Your task to perform on an android device: search for starred emails in the gmail app Image 0: 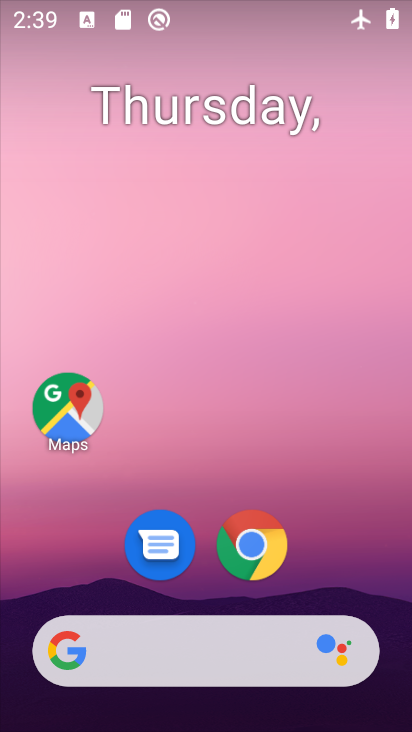
Step 0: drag from (229, 696) to (138, 144)
Your task to perform on an android device: search for starred emails in the gmail app Image 1: 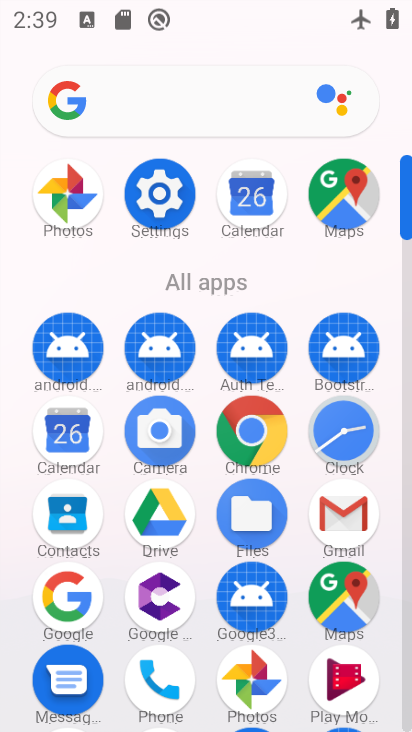
Step 1: click (344, 521)
Your task to perform on an android device: search for starred emails in the gmail app Image 2: 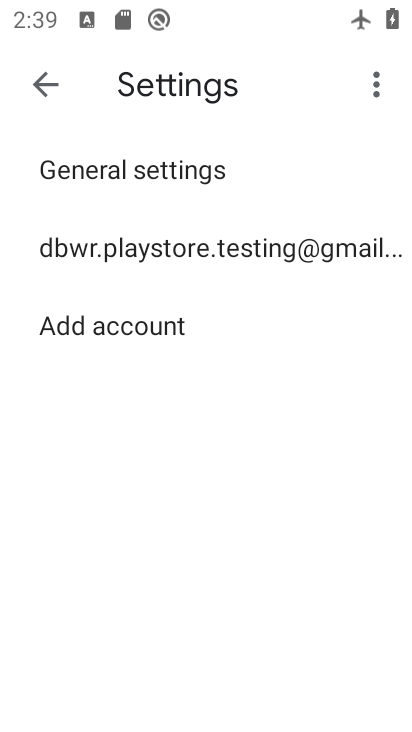
Step 2: click (38, 78)
Your task to perform on an android device: search for starred emails in the gmail app Image 3: 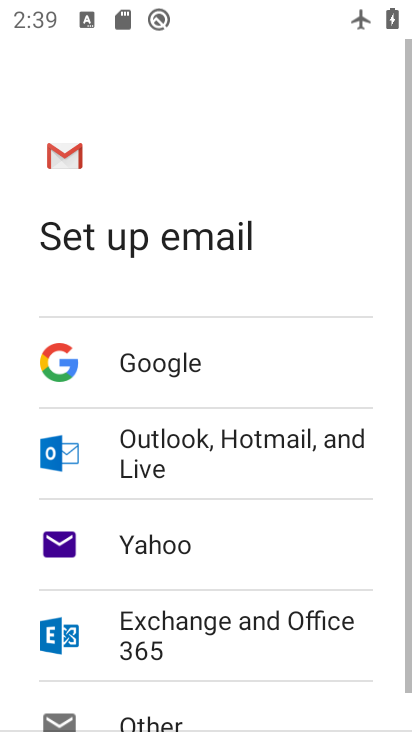
Step 3: press back button
Your task to perform on an android device: search for starred emails in the gmail app Image 4: 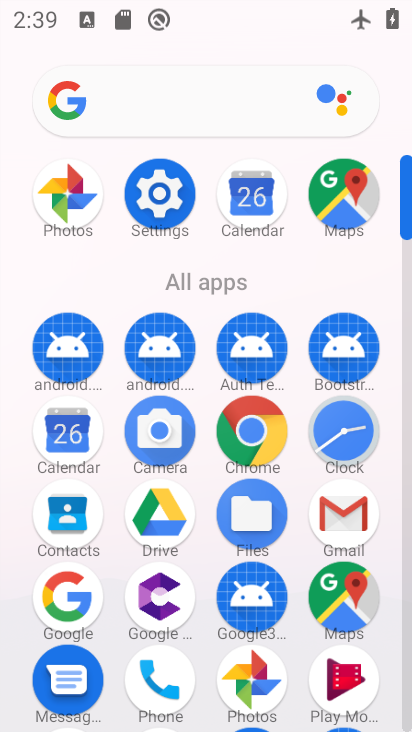
Step 4: click (358, 500)
Your task to perform on an android device: search for starred emails in the gmail app Image 5: 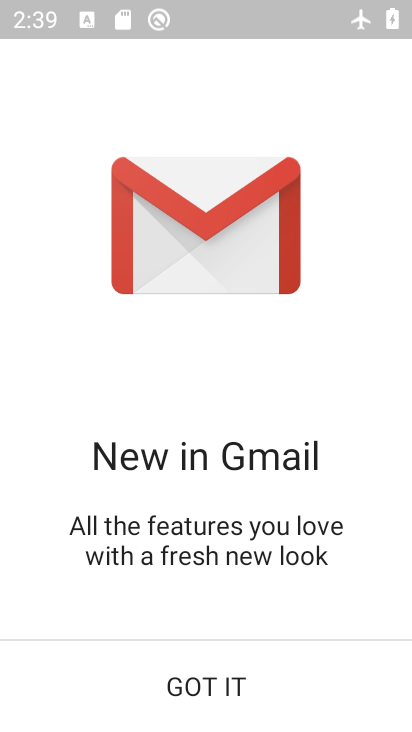
Step 5: click (230, 687)
Your task to perform on an android device: search for starred emails in the gmail app Image 6: 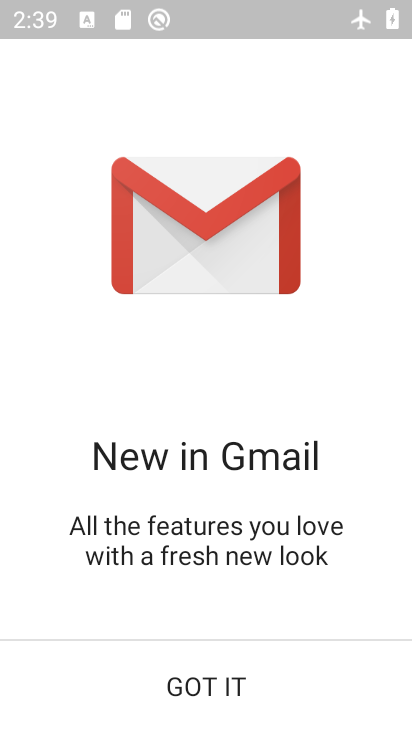
Step 6: click (230, 687)
Your task to perform on an android device: search for starred emails in the gmail app Image 7: 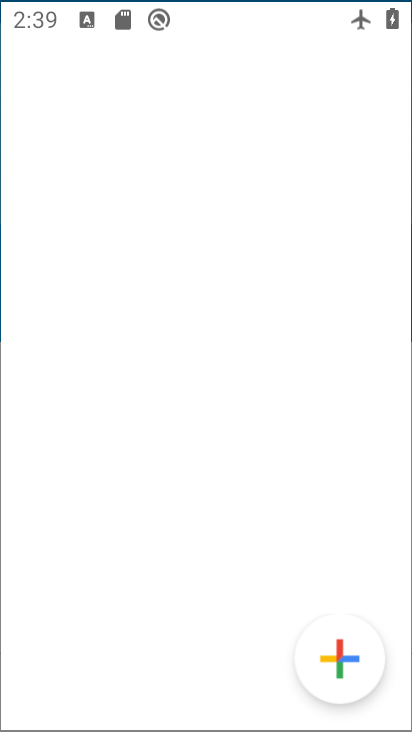
Step 7: click (230, 687)
Your task to perform on an android device: search for starred emails in the gmail app Image 8: 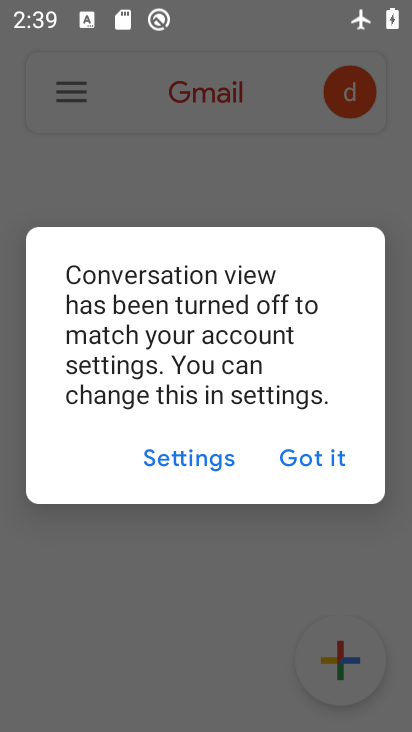
Step 8: click (333, 455)
Your task to perform on an android device: search for starred emails in the gmail app Image 9: 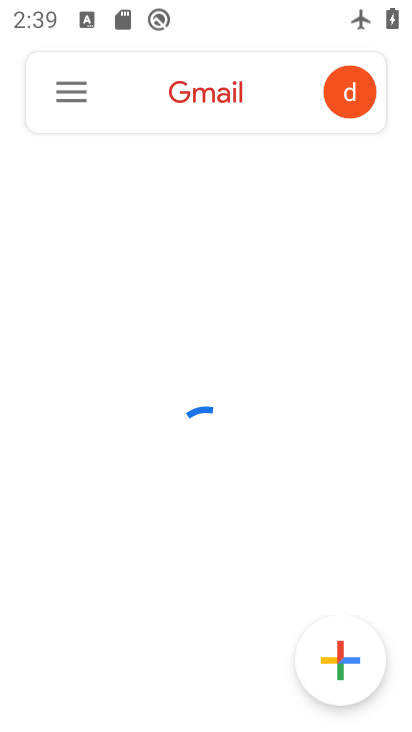
Step 9: click (75, 88)
Your task to perform on an android device: search for starred emails in the gmail app Image 10: 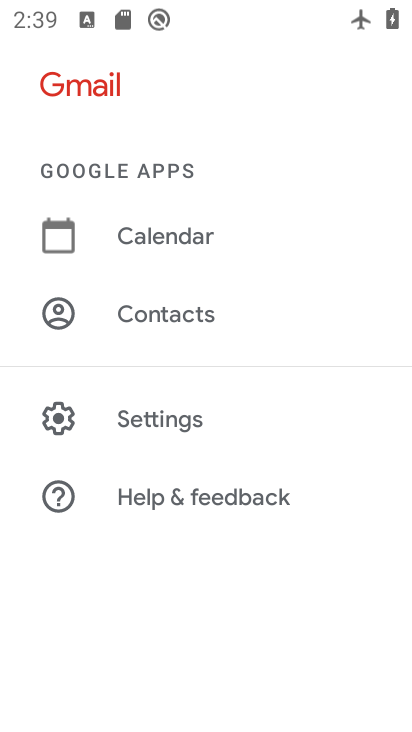
Step 10: drag from (270, 176) to (270, 580)
Your task to perform on an android device: search for starred emails in the gmail app Image 11: 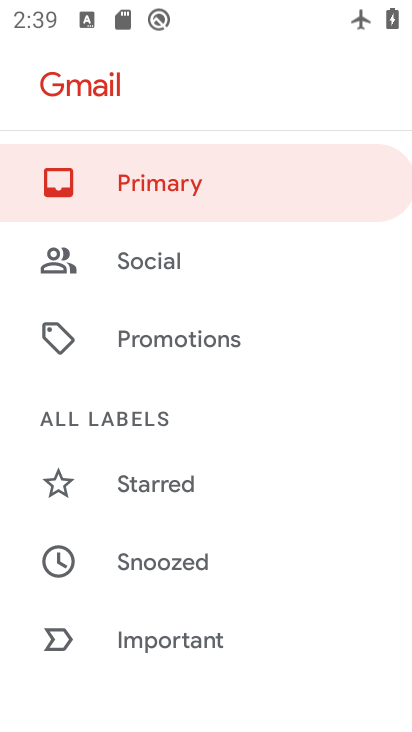
Step 11: click (185, 472)
Your task to perform on an android device: search for starred emails in the gmail app Image 12: 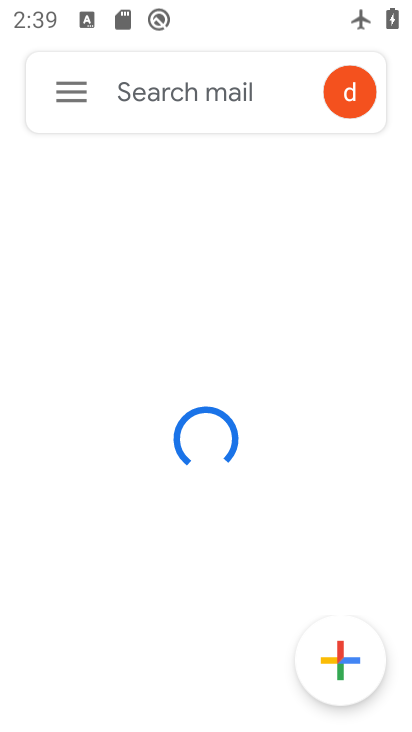
Step 12: task complete